Your task to perform on an android device: star an email in the gmail app Image 0: 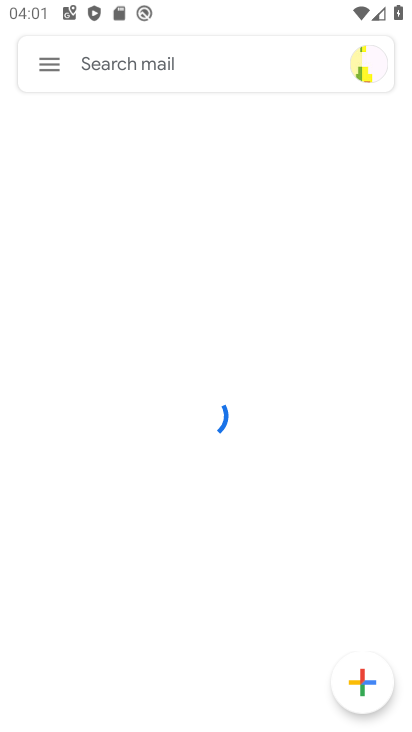
Step 0: press home button
Your task to perform on an android device: star an email in the gmail app Image 1: 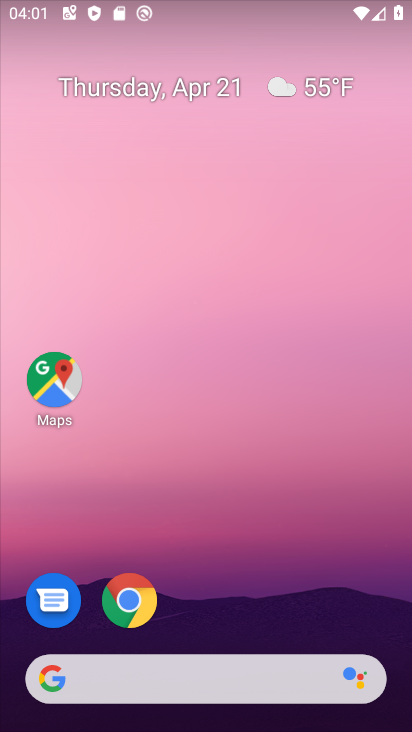
Step 1: drag from (211, 589) to (160, 127)
Your task to perform on an android device: star an email in the gmail app Image 2: 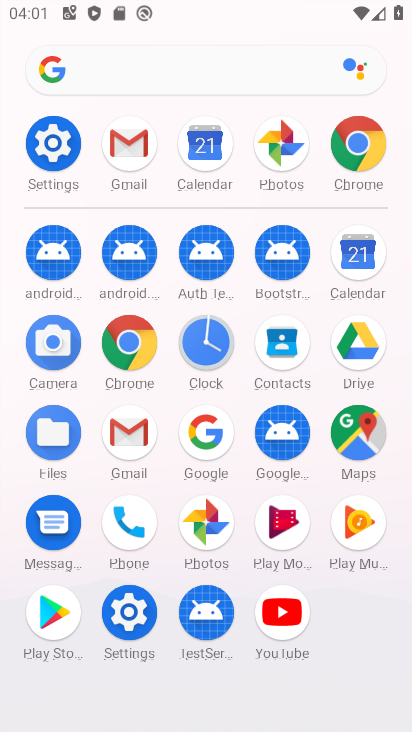
Step 2: click (126, 432)
Your task to perform on an android device: star an email in the gmail app Image 3: 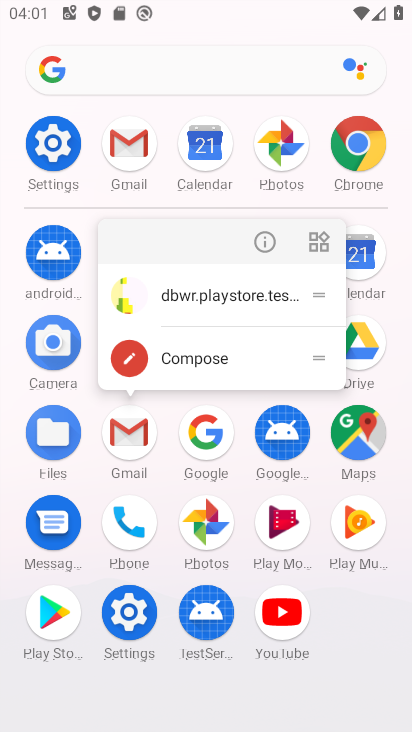
Step 3: click (122, 416)
Your task to perform on an android device: star an email in the gmail app Image 4: 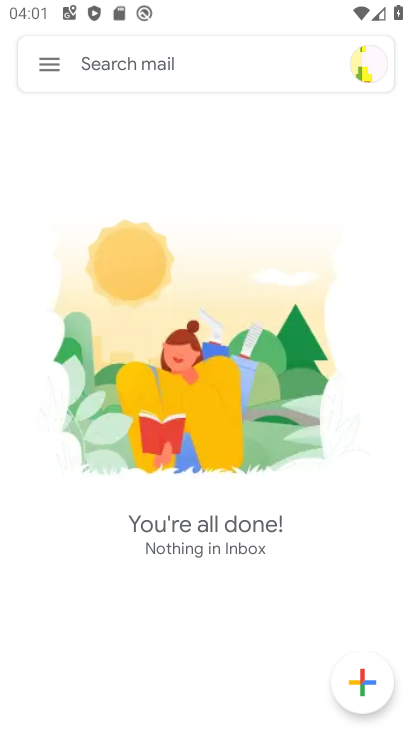
Step 4: click (40, 77)
Your task to perform on an android device: star an email in the gmail app Image 5: 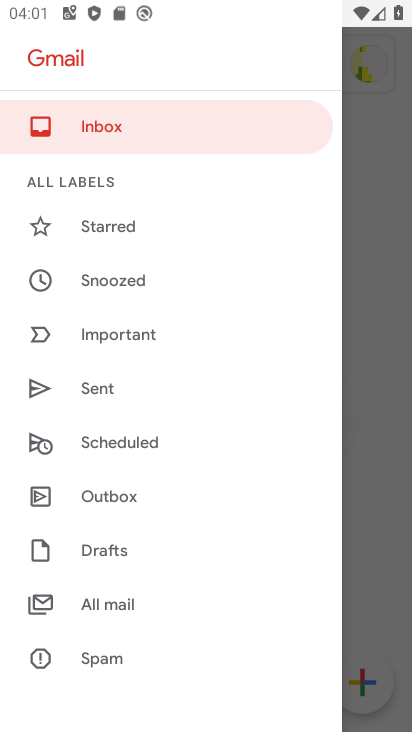
Step 5: drag from (143, 585) to (128, 501)
Your task to perform on an android device: star an email in the gmail app Image 6: 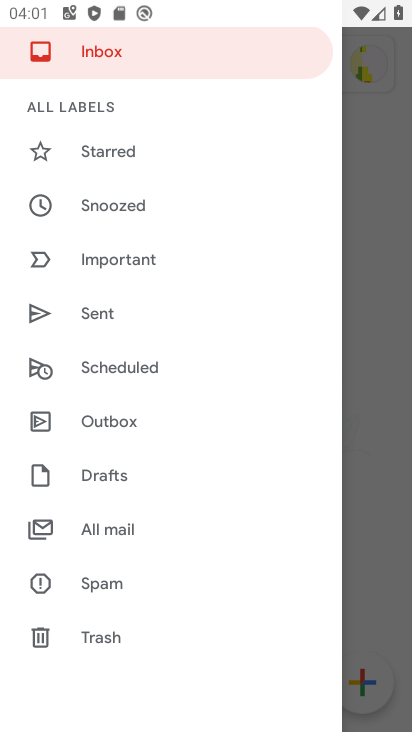
Step 6: click (109, 516)
Your task to perform on an android device: star an email in the gmail app Image 7: 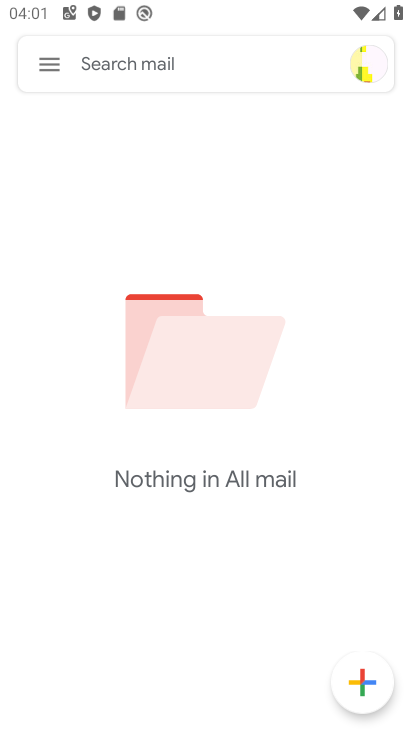
Step 7: task complete